Your task to perform on an android device: turn off translation in the chrome app Image 0: 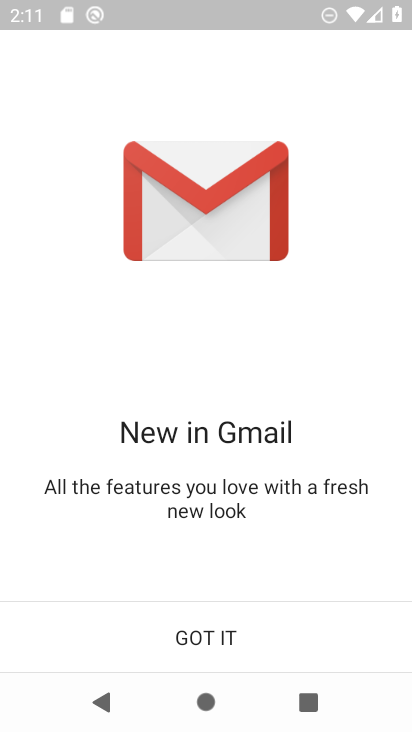
Step 0: press home button
Your task to perform on an android device: turn off translation in the chrome app Image 1: 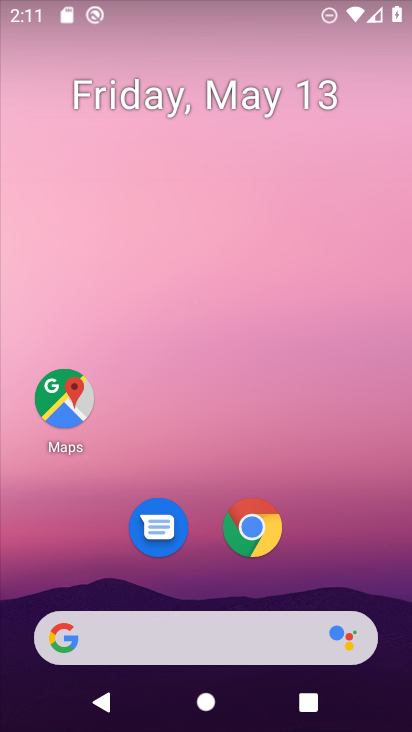
Step 1: drag from (335, 549) to (323, 155)
Your task to perform on an android device: turn off translation in the chrome app Image 2: 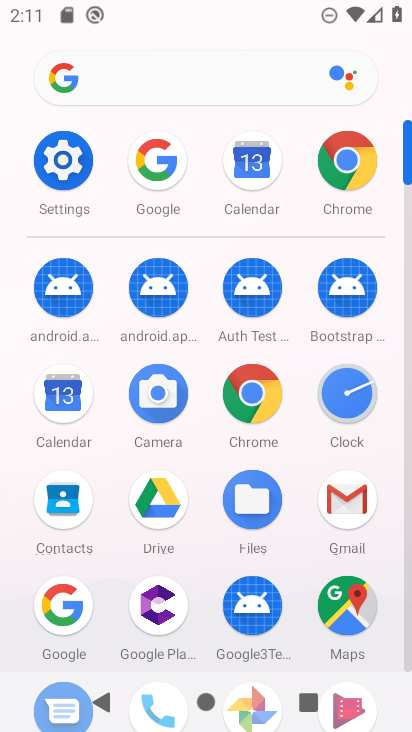
Step 2: click (229, 405)
Your task to perform on an android device: turn off translation in the chrome app Image 3: 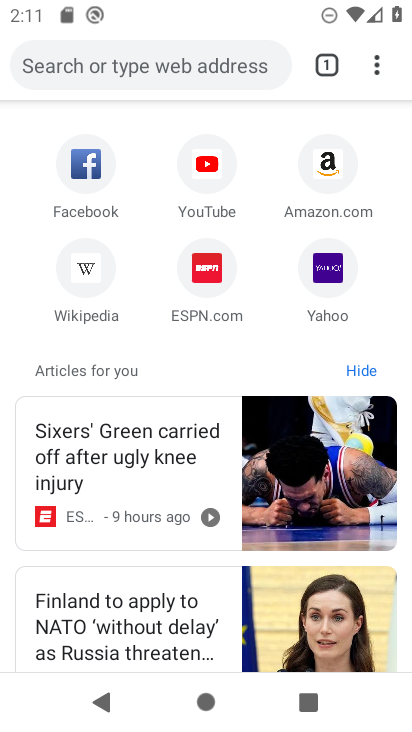
Step 3: drag from (374, 72) to (254, 552)
Your task to perform on an android device: turn off translation in the chrome app Image 4: 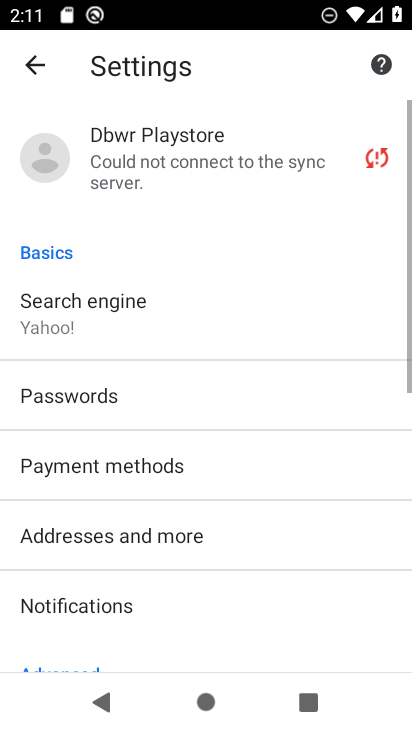
Step 4: drag from (181, 614) to (287, 310)
Your task to perform on an android device: turn off translation in the chrome app Image 5: 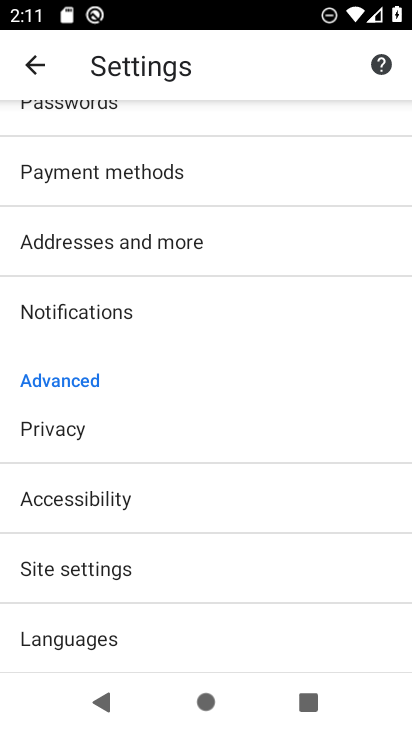
Step 5: click (155, 626)
Your task to perform on an android device: turn off translation in the chrome app Image 6: 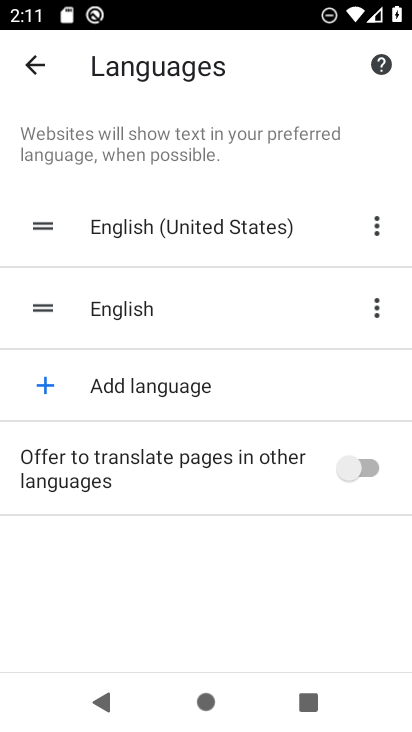
Step 6: task complete